Your task to perform on an android device: Open calendar and show me the fourth week of next month Image 0: 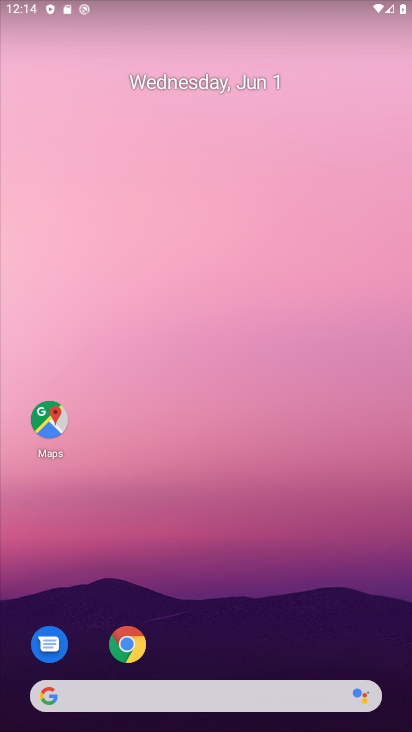
Step 0: drag from (278, 638) to (331, 54)
Your task to perform on an android device: Open calendar and show me the fourth week of next month Image 1: 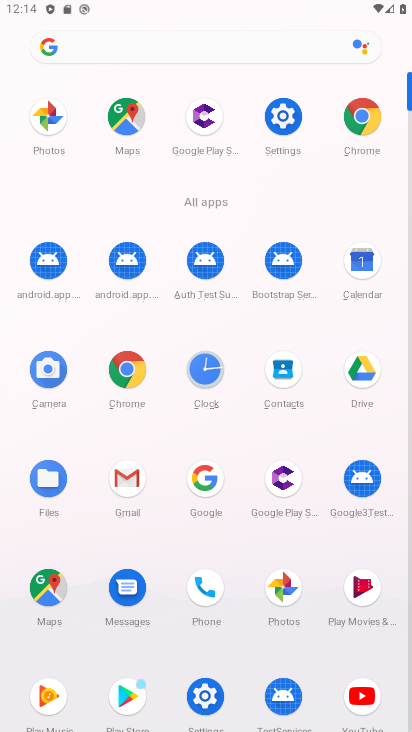
Step 1: click (356, 275)
Your task to perform on an android device: Open calendar and show me the fourth week of next month Image 2: 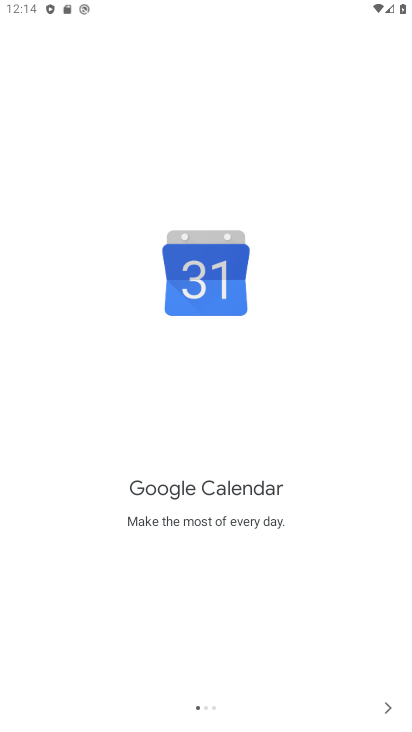
Step 2: click (385, 703)
Your task to perform on an android device: Open calendar and show me the fourth week of next month Image 3: 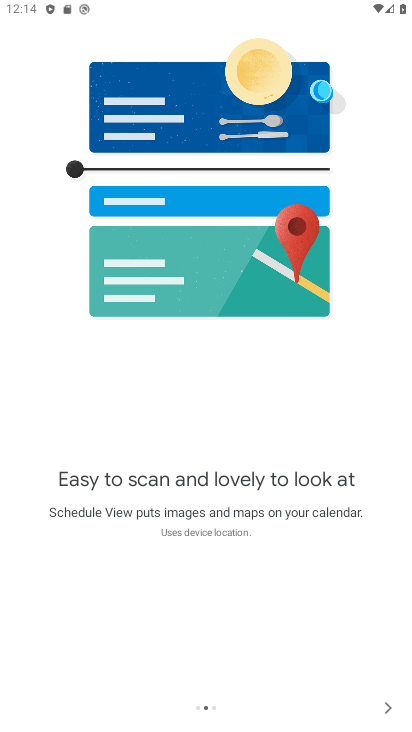
Step 3: click (385, 703)
Your task to perform on an android device: Open calendar and show me the fourth week of next month Image 4: 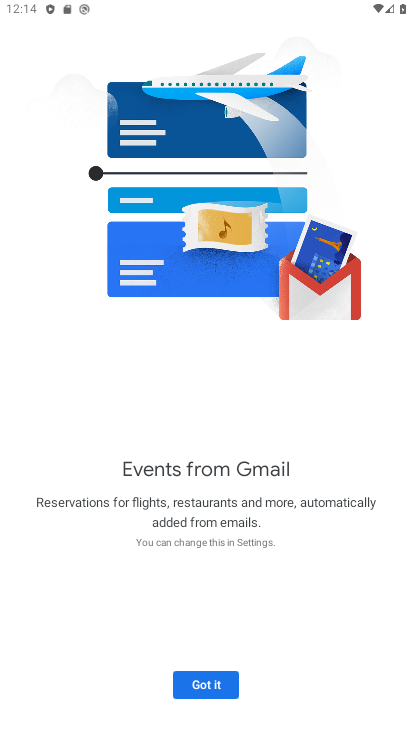
Step 4: click (195, 674)
Your task to perform on an android device: Open calendar and show me the fourth week of next month Image 5: 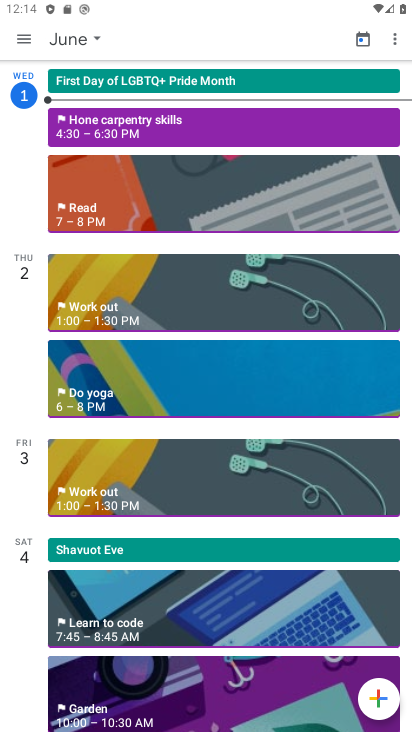
Step 5: click (100, 44)
Your task to perform on an android device: Open calendar and show me the fourth week of next month Image 6: 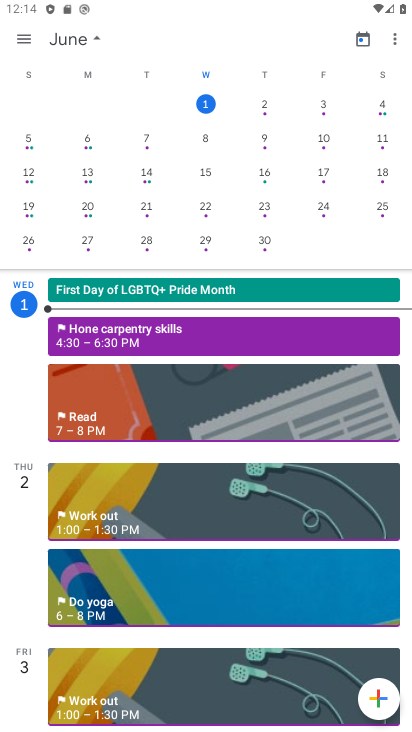
Step 6: drag from (389, 190) to (98, 136)
Your task to perform on an android device: Open calendar and show me the fourth week of next month Image 7: 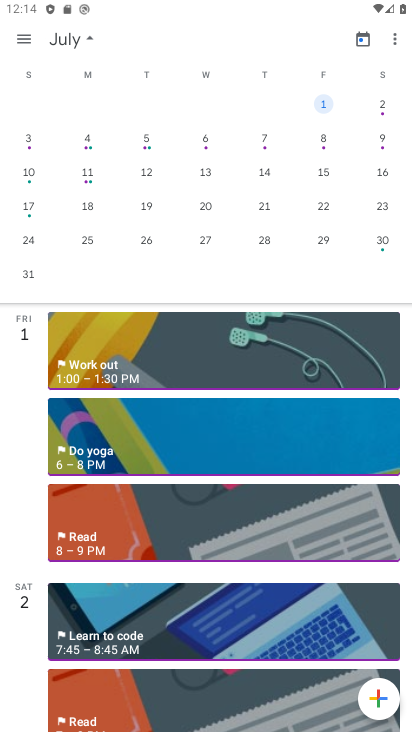
Step 7: click (328, 211)
Your task to perform on an android device: Open calendar and show me the fourth week of next month Image 8: 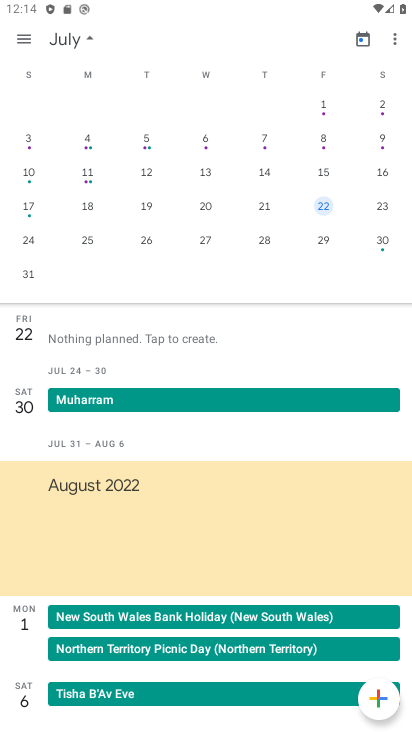
Step 8: task complete